Your task to perform on an android device: What is the news today? Image 0: 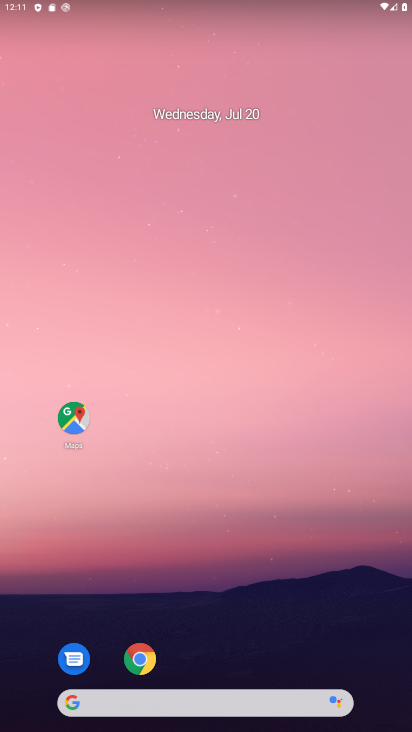
Step 0: press home button
Your task to perform on an android device: What is the news today? Image 1: 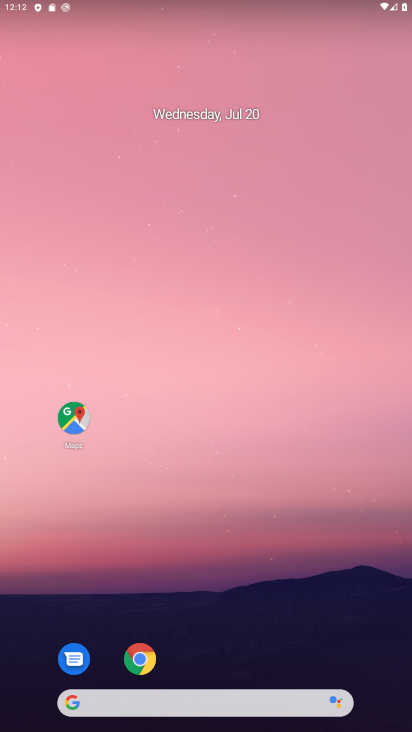
Step 1: task complete